Your task to perform on an android device: turn on notifications settings in the gmail app Image 0: 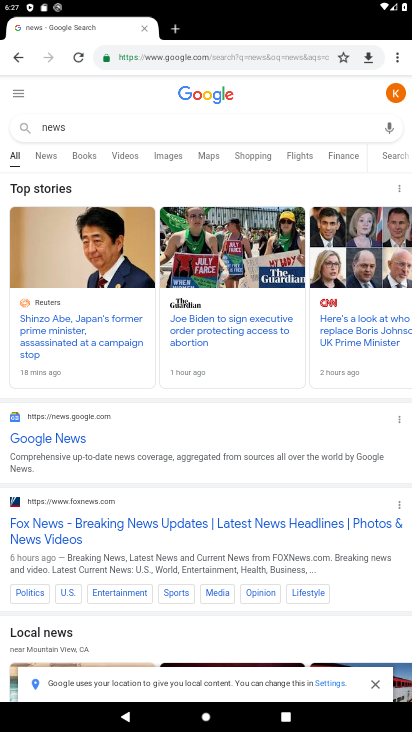
Step 0: press home button
Your task to perform on an android device: turn on notifications settings in the gmail app Image 1: 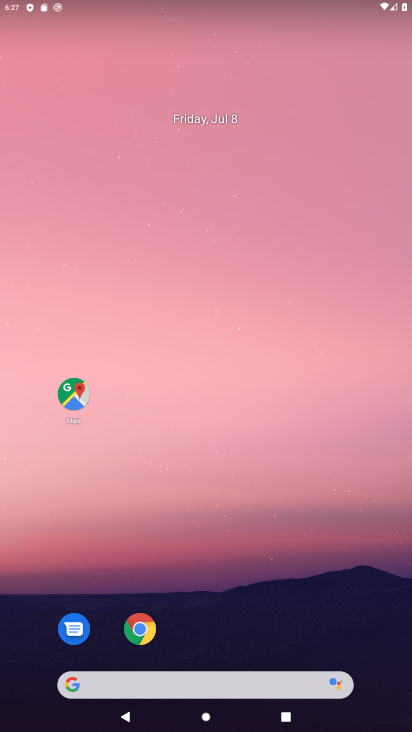
Step 1: drag from (341, 661) to (326, 165)
Your task to perform on an android device: turn on notifications settings in the gmail app Image 2: 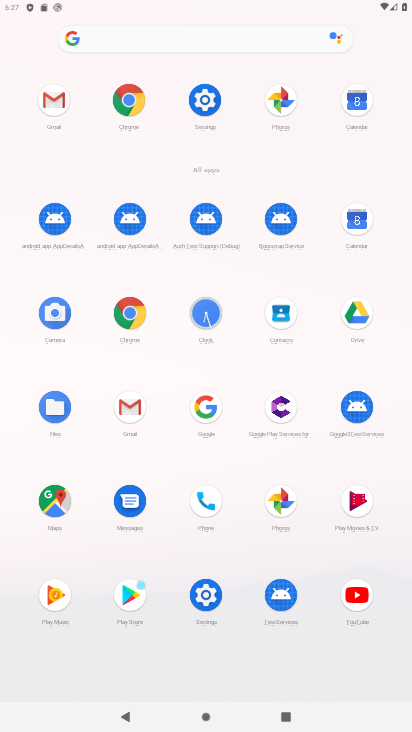
Step 2: click (149, 407)
Your task to perform on an android device: turn on notifications settings in the gmail app Image 3: 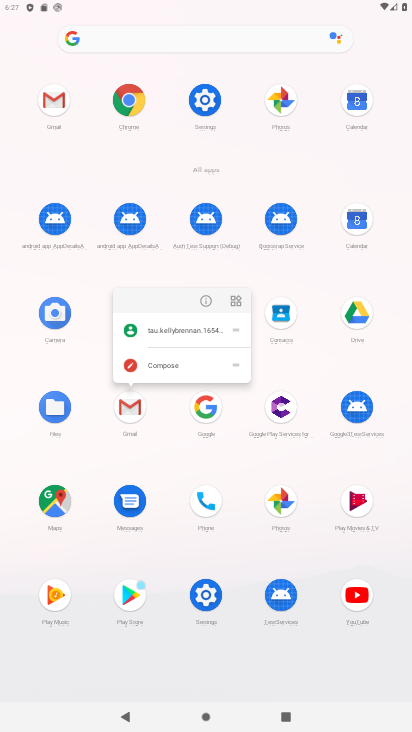
Step 3: click (207, 307)
Your task to perform on an android device: turn on notifications settings in the gmail app Image 4: 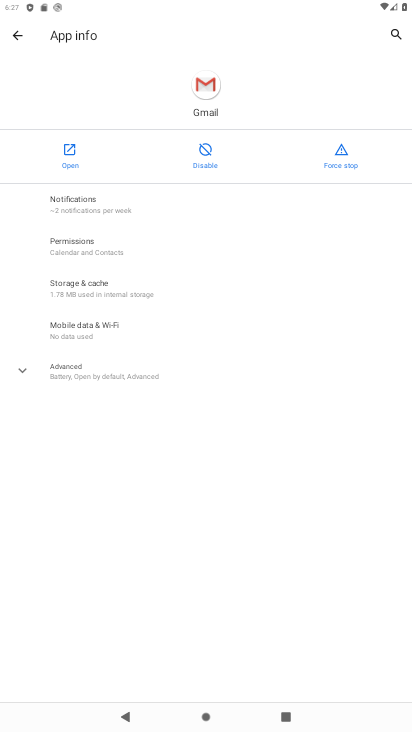
Step 4: click (47, 209)
Your task to perform on an android device: turn on notifications settings in the gmail app Image 5: 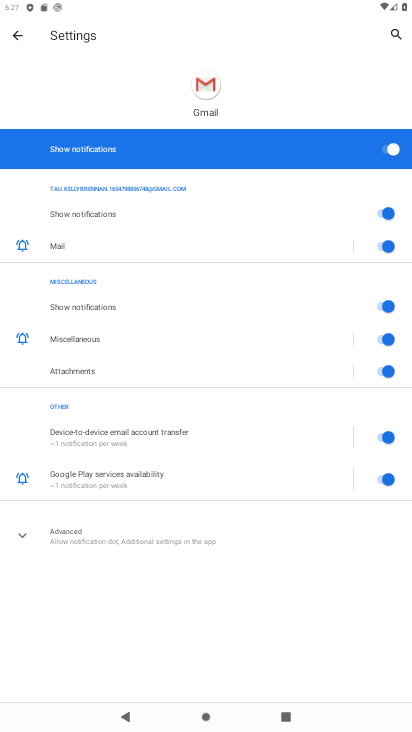
Step 5: task complete